Your task to perform on an android device: Open Google Maps Image 0: 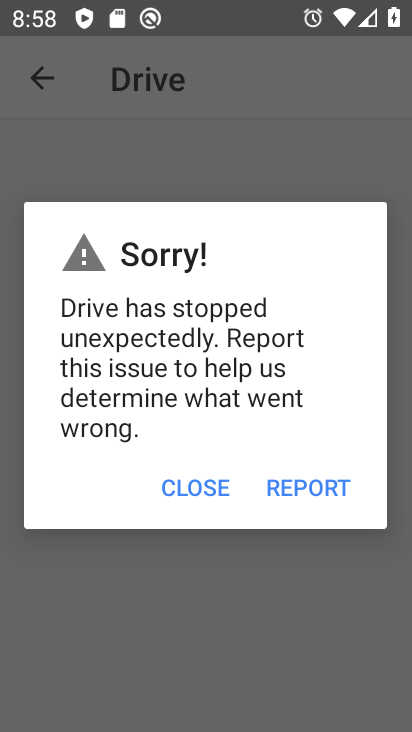
Step 0: press home button
Your task to perform on an android device: Open Google Maps Image 1: 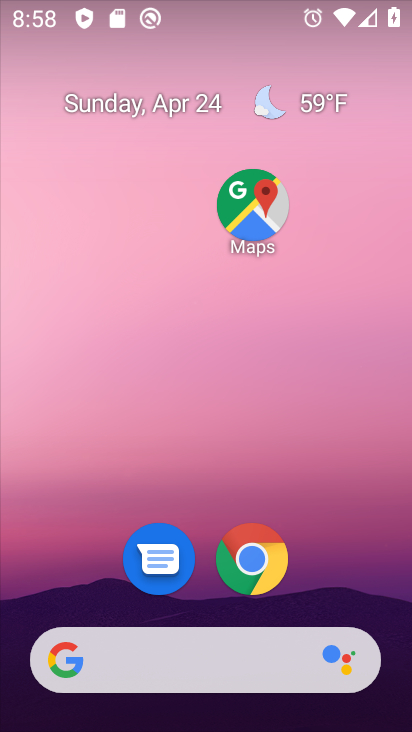
Step 1: click (246, 199)
Your task to perform on an android device: Open Google Maps Image 2: 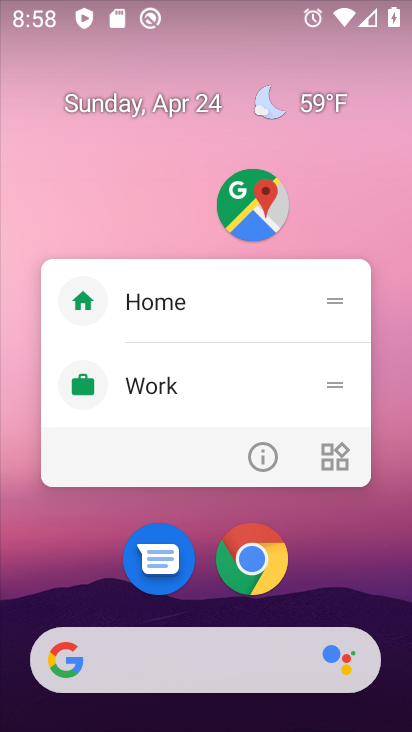
Step 2: click (251, 460)
Your task to perform on an android device: Open Google Maps Image 3: 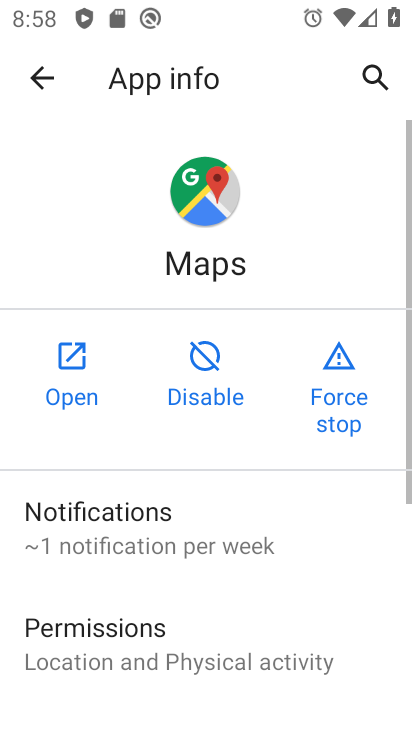
Step 3: click (70, 374)
Your task to perform on an android device: Open Google Maps Image 4: 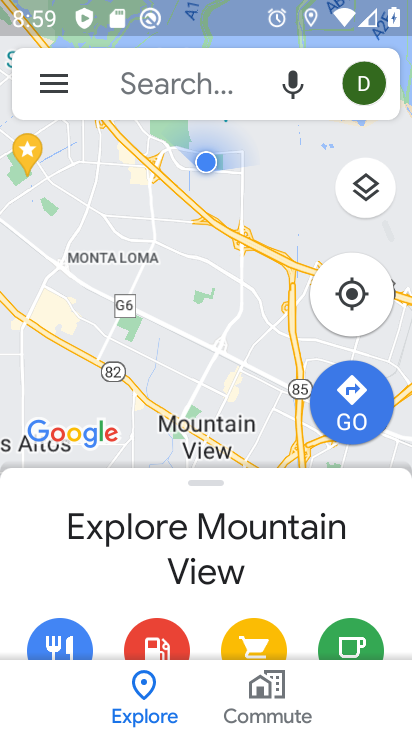
Step 4: click (70, 375)
Your task to perform on an android device: Open Google Maps Image 5: 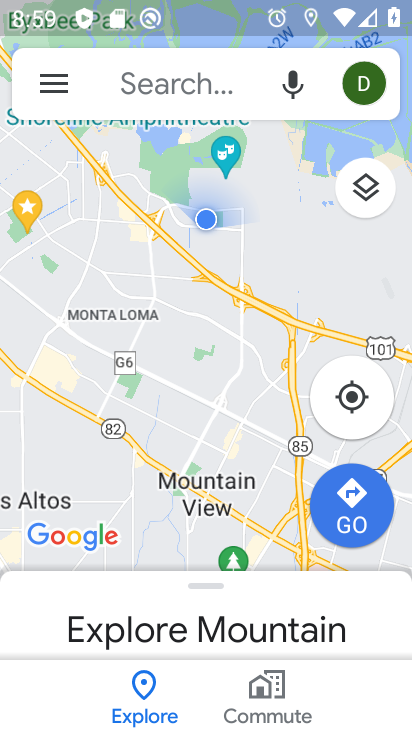
Step 5: click (70, 375)
Your task to perform on an android device: Open Google Maps Image 6: 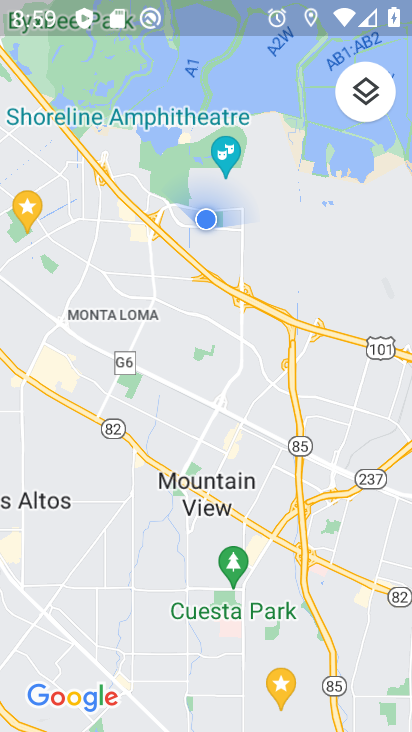
Step 6: click (70, 375)
Your task to perform on an android device: Open Google Maps Image 7: 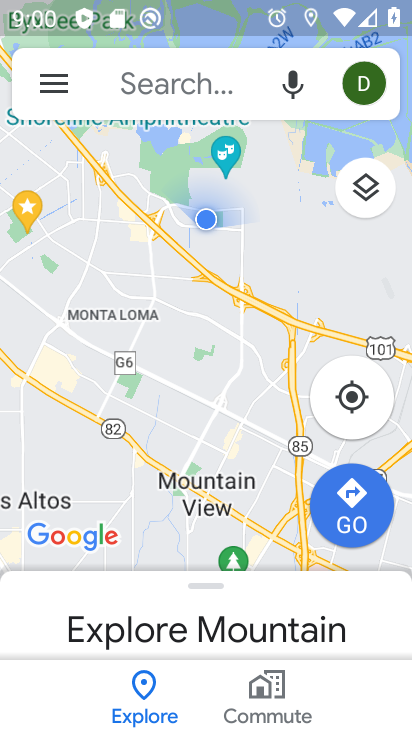
Step 7: task complete